Your task to perform on an android device: toggle show notifications on the lock screen Image 0: 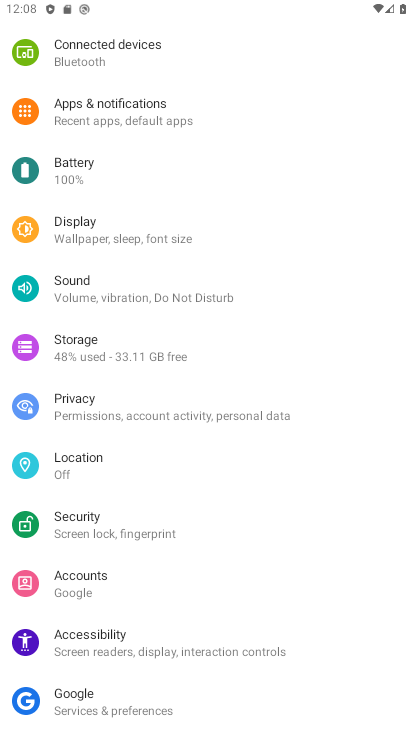
Step 0: click (123, 116)
Your task to perform on an android device: toggle show notifications on the lock screen Image 1: 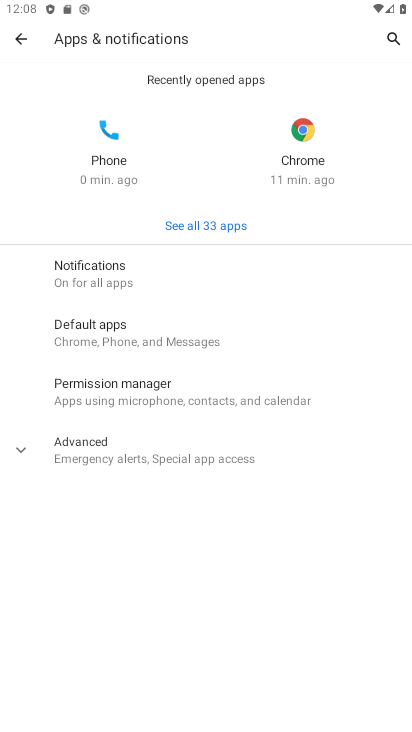
Step 1: click (168, 286)
Your task to perform on an android device: toggle show notifications on the lock screen Image 2: 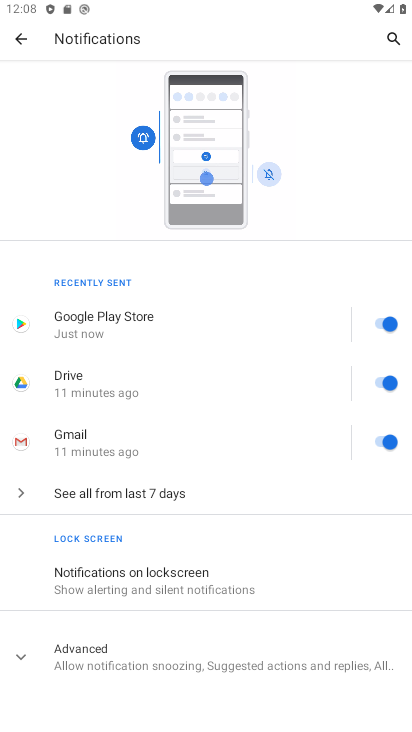
Step 2: click (158, 666)
Your task to perform on an android device: toggle show notifications on the lock screen Image 3: 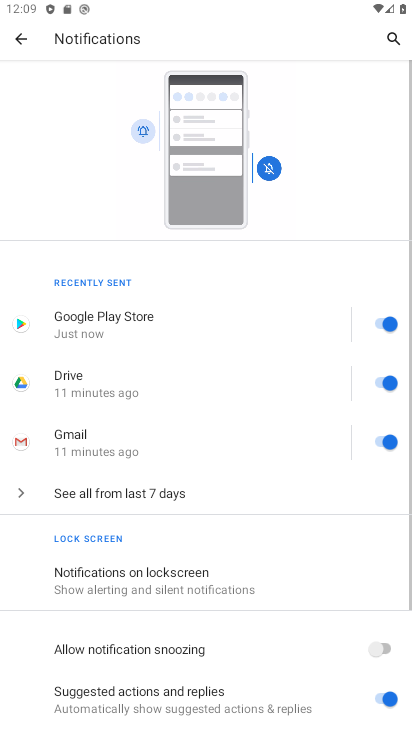
Step 3: click (167, 573)
Your task to perform on an android device: toggle show notifications on the lock screen Image 4: 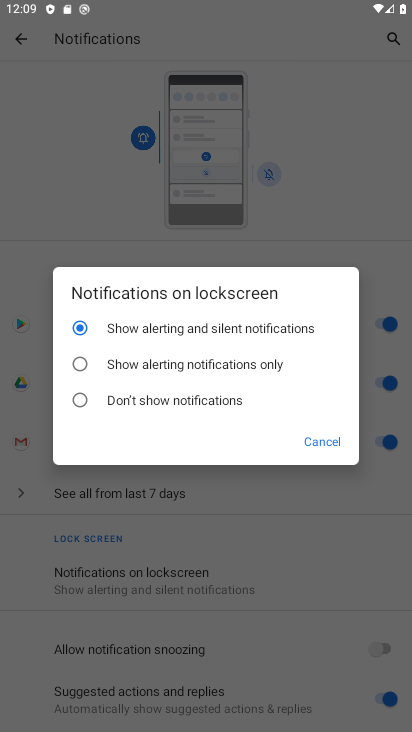
Step 4: click (85, 397)
Your task to perform on an android device: toggle show notifications on the lock screen Image 5: 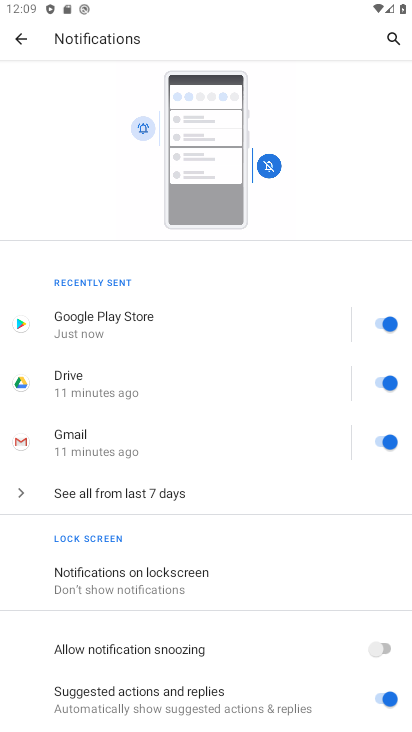
Step 5: task complete